Your task to perform on an android device: turn off translation in the chrome app Image 0: 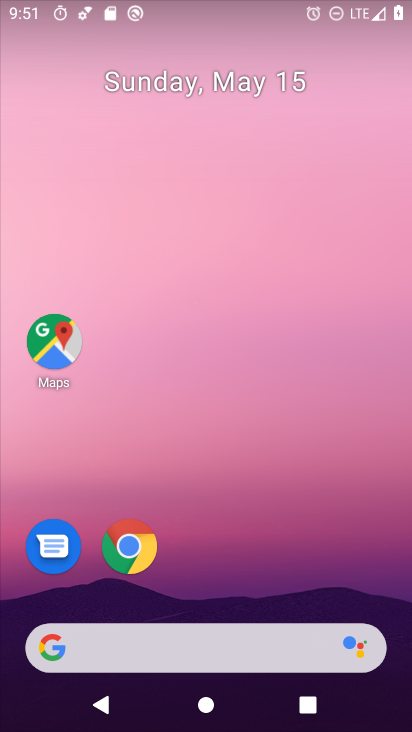
Step 0: drag from (261, 580) to (272, 112)
Your task to perform on an android device: turn off translation in the chrome app Image 1: 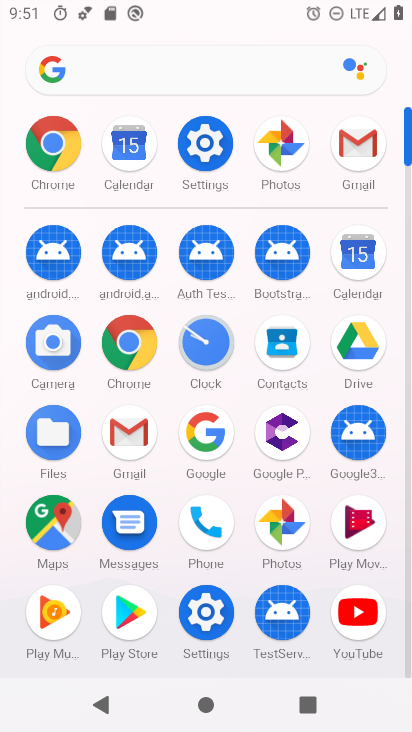
Step 1: click (56, 150)
Your task to perform on an android device: turn off translation in the chrome app Image 2: 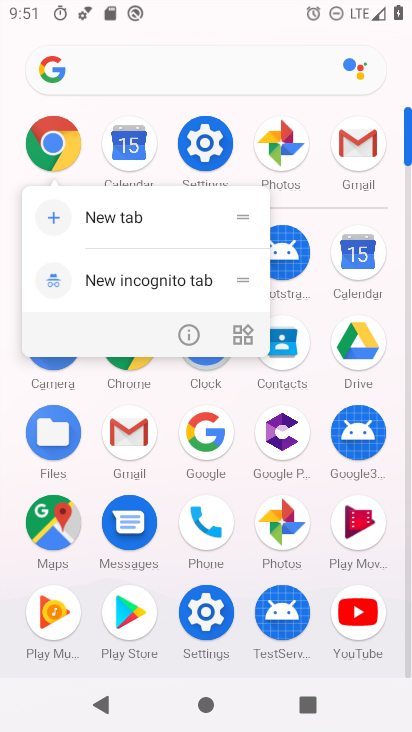
Step 2: click (61, 148)
Your task to perform on an android device: turn off translation in the chrome app Image 3: 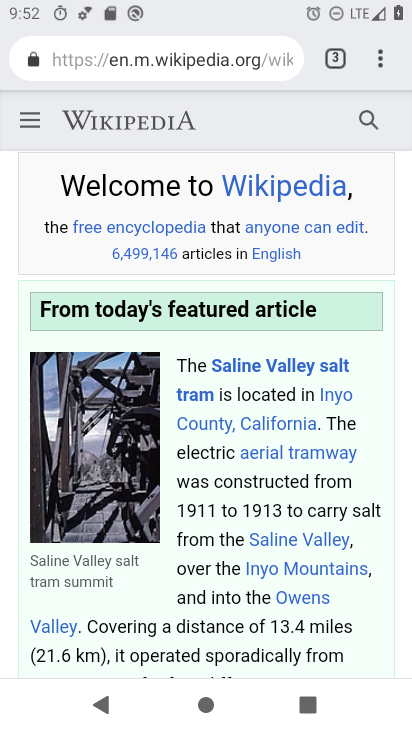
Step 3: click (376, 54)
Your task to perform on an android device: turn off translation in the chrome app Image 4: 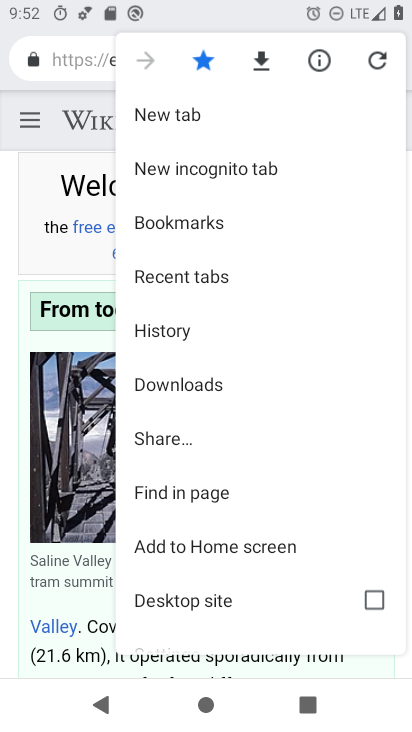
Step 4: drag from (219, 499) to (242, 239)
Your task to perform on an android device: turn off translation in the chrome app Image 5: 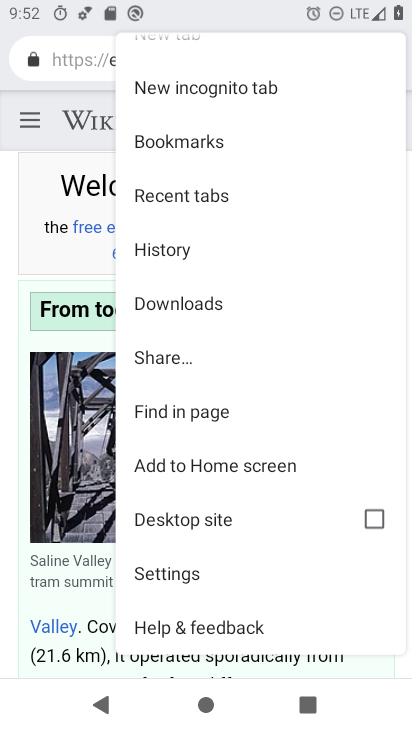
Step 5: click (212, 570)
Your task to perform on an android device: turn off translation in the chrome app Image 6: 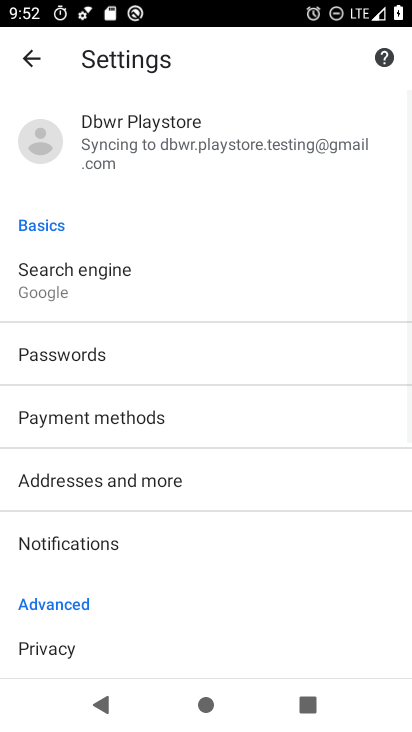
Step 6: drag from (233, 532) to (204, 339)
Your task to perform on an android device: turn off translation in the chrome app Image 7: 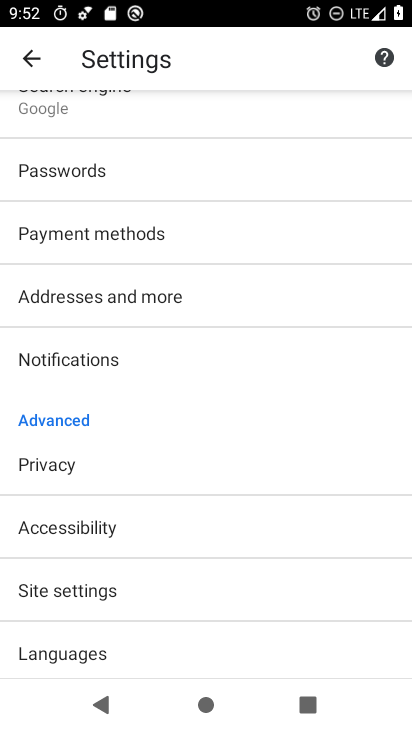
Step 7: click (186, 654)
Your task to perform on an android device: turn off translation in the chrome app Image 8: 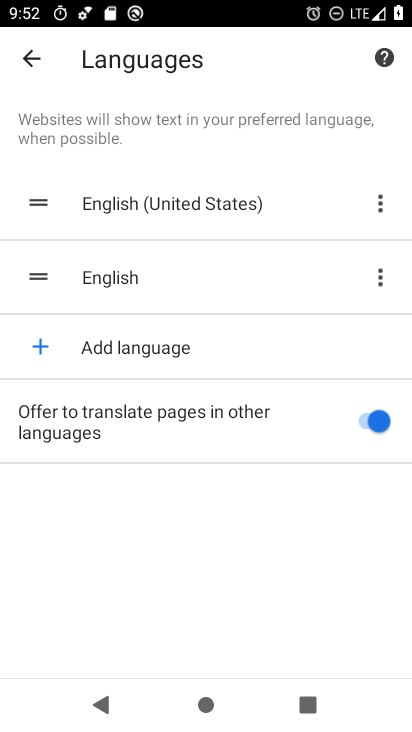
Step 8: click (365, 413)
Your task to perform on an android device: turn off translation in the chrome app Image 9: 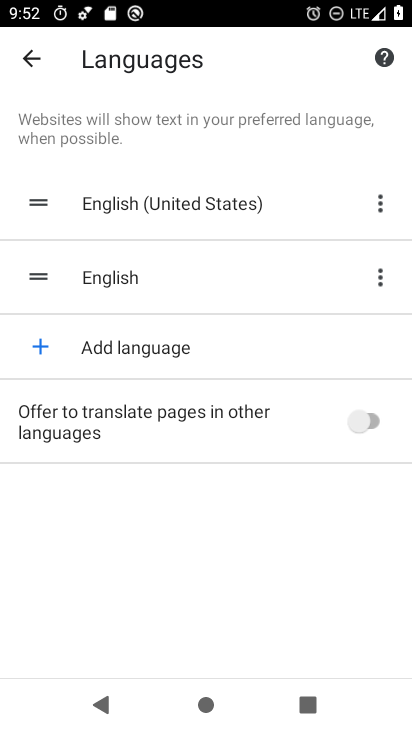
Step 9: task complete